Your task to perform on an android device: clear all cookies in the chrome app Image 0: 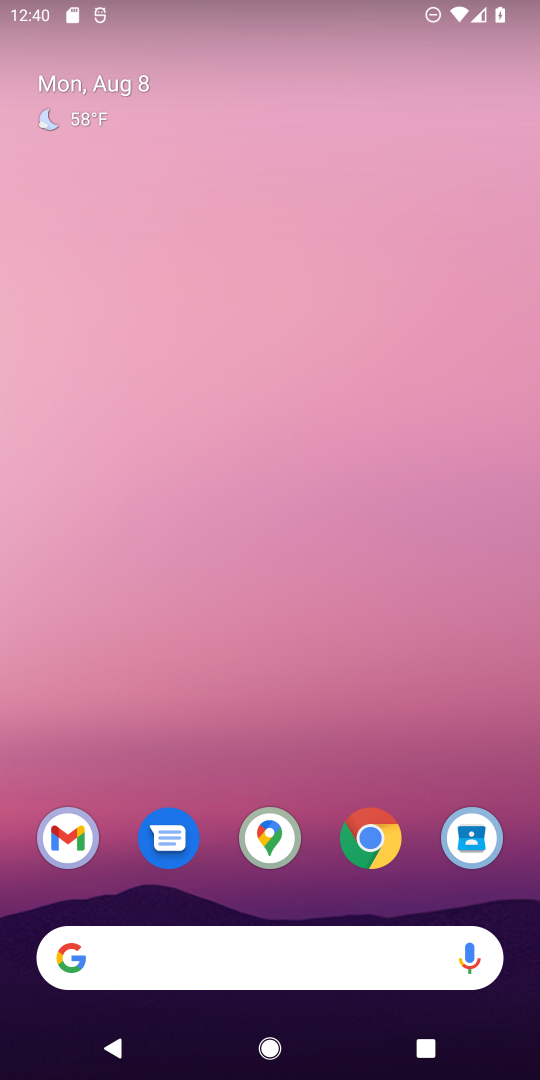
Step 0: press home button
Your task to perform on an android device: clear all cookies in the chrome app Image 1: 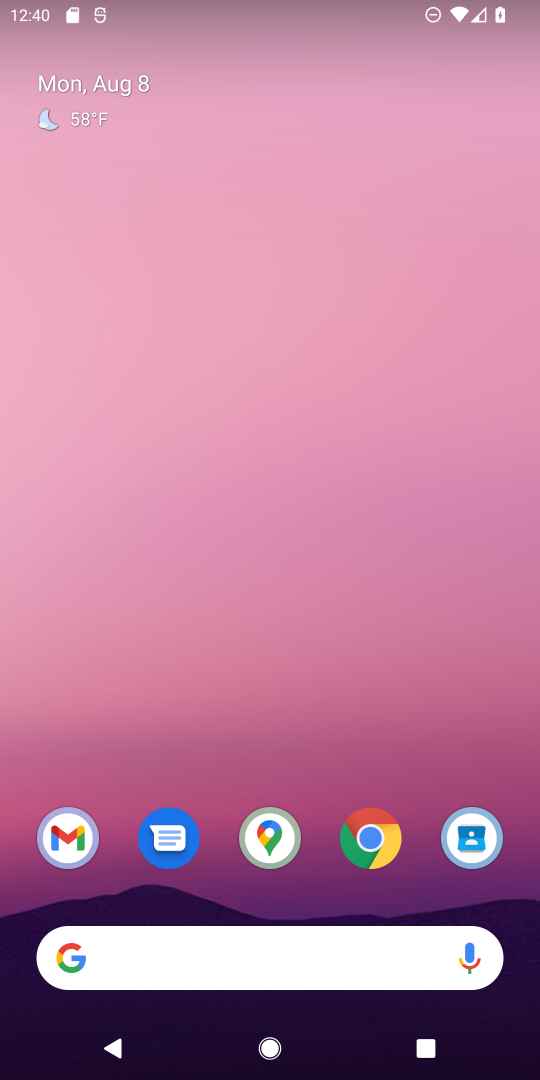
Step 1: click (364, 841)
Your task to perform on an android device: clear all cookies in the chrome app Image 2: 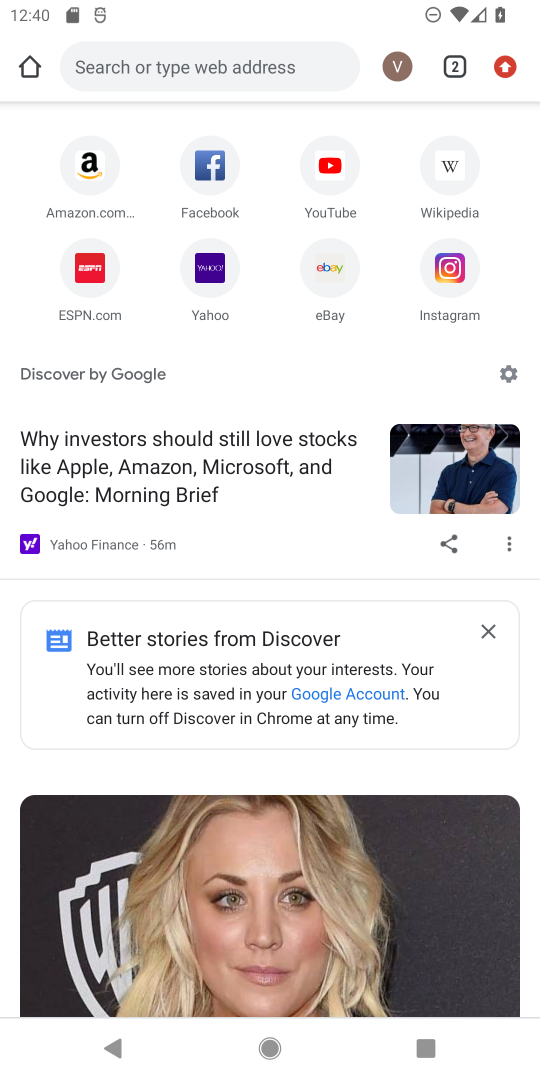
Step 2: drag from (507, 73) to (324, 662)
Your task to perform on an android device: clear all cookies in the chrome app Image 3: 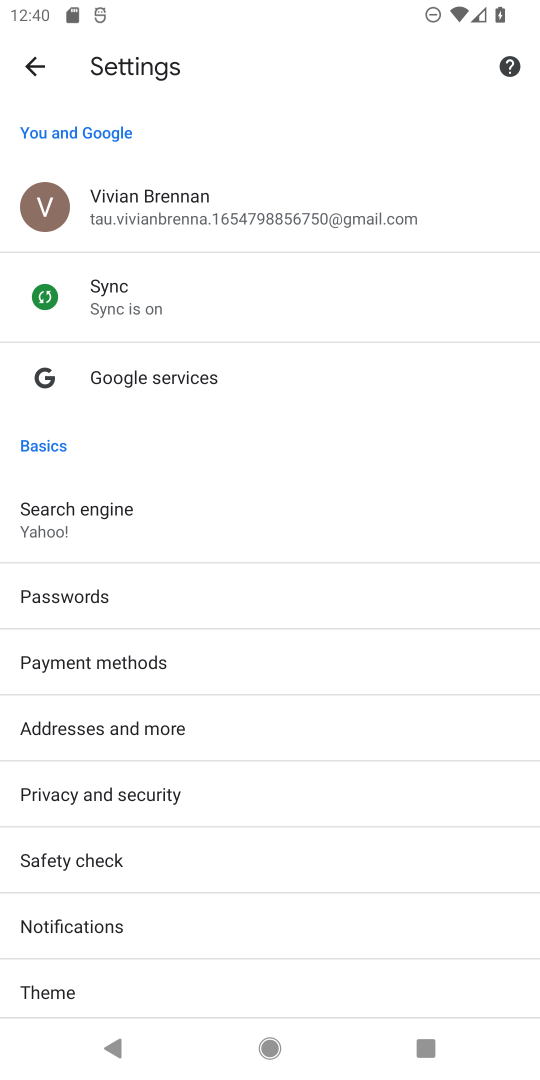
Step 3: click (104, 803)
Your task to perform on an android device: clear all cookies in the chrome app Image 4: 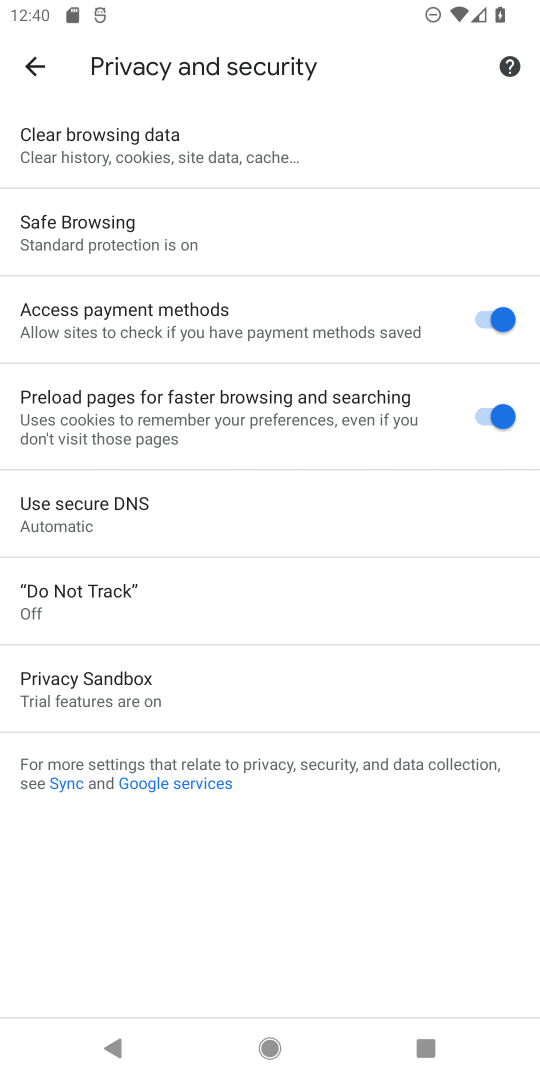
Step 4: click (107, 149)
Your task to perform on an android device: clear all cookies in the chrome app Image 5: 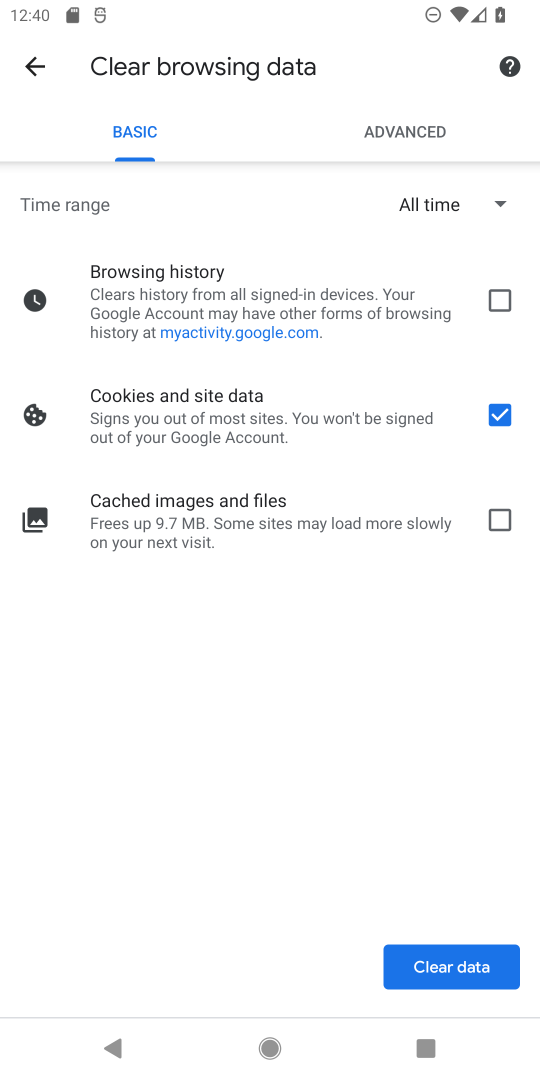
Step 5: click (461, 966)
Your task to perform on an android device: clear all cookies in the chrome app Image 6: 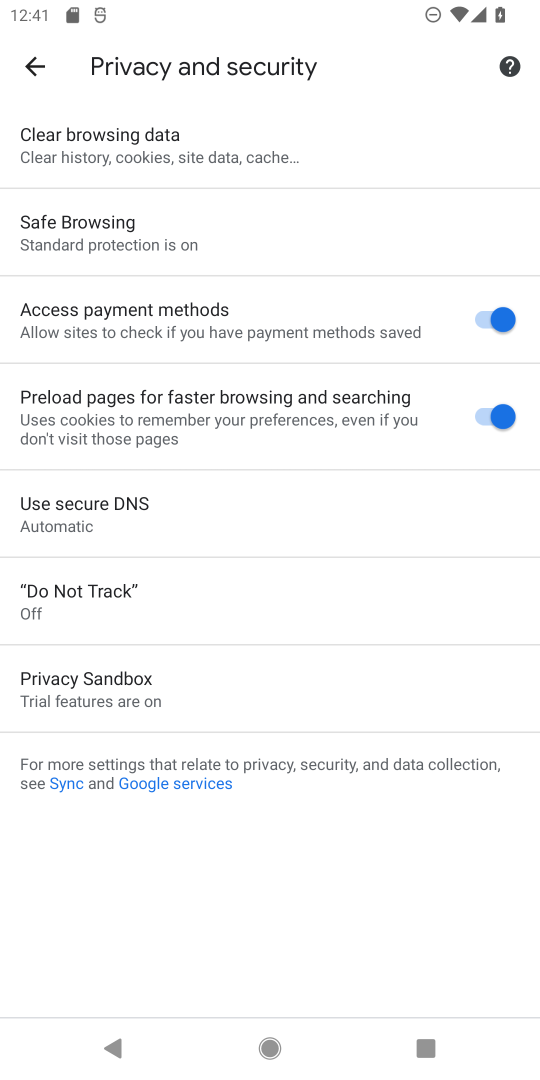
Step 6: task complete